Your task to perform on an android device: Open notification settings Image 0: 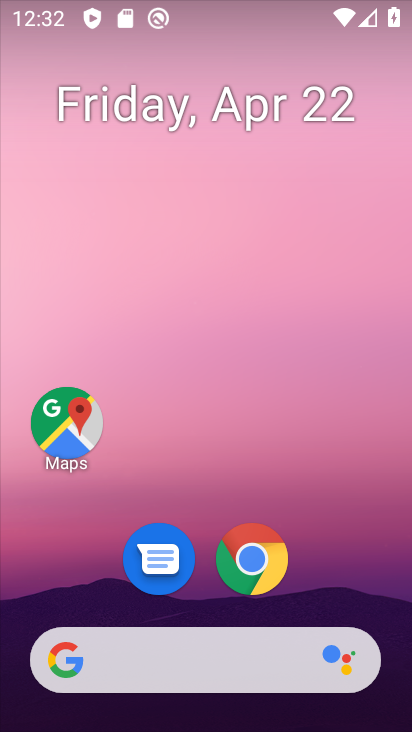
Step 0: drag from (345, 573) to (366, 131)
Your task to perform on an android device: Open notification settings Image 1: 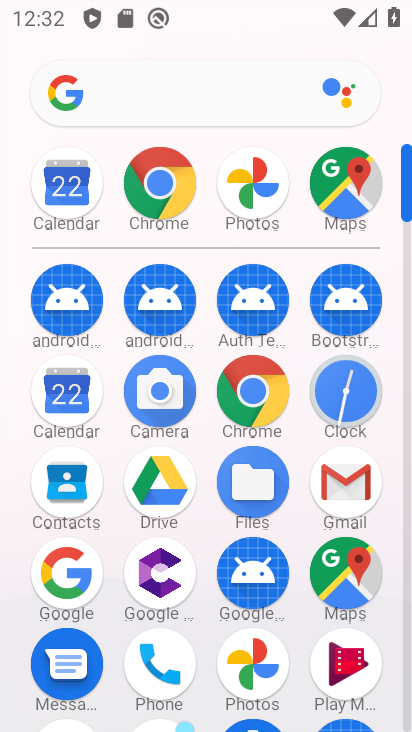
Step 1: drag from (387, 533) to (399, 287)
Your task to perform on an android device: Open notification settings Image 2: 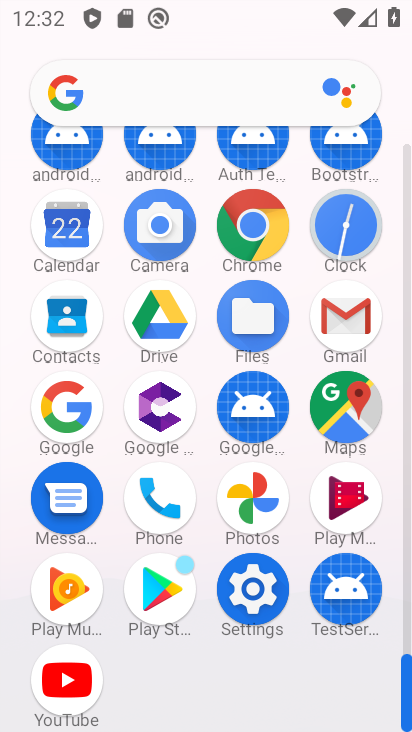
Step 2: click (268, 606)
Your task to perform on an android device: Open notification settings Image 3: 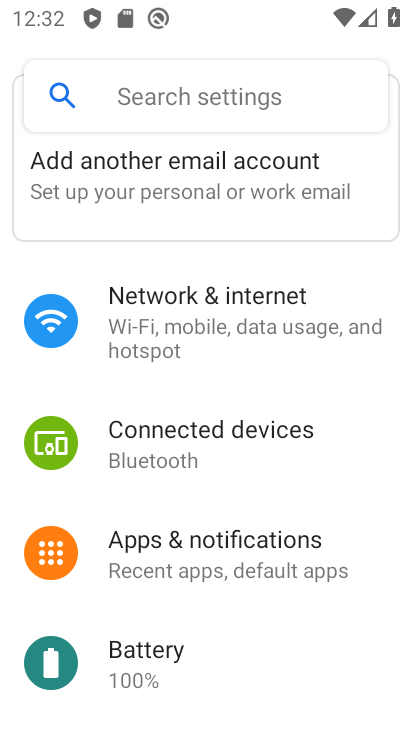
Step 3: click (294, 570)
Your task to perform on an android device: Open notification settings Image 4: 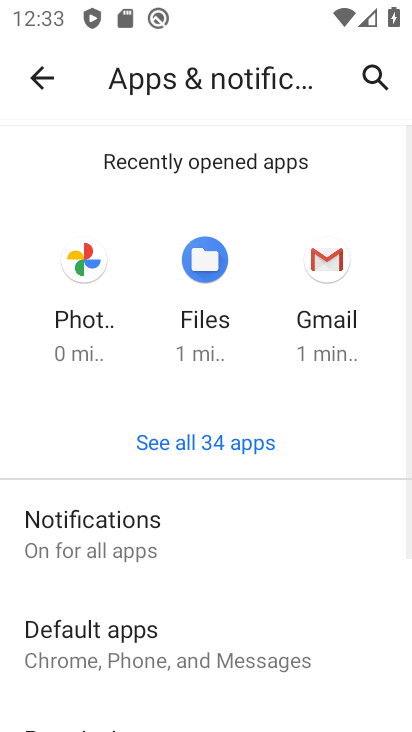
Step 4: click (130, 550)
Your task to perform on an android device: Open notification settings Image 5: 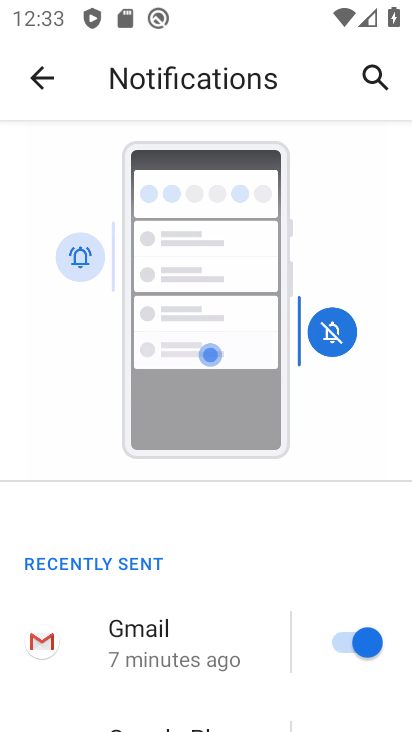
Step 5: task complete